Your task to perform on an android device: install app "Viber Messenger" Image 0: 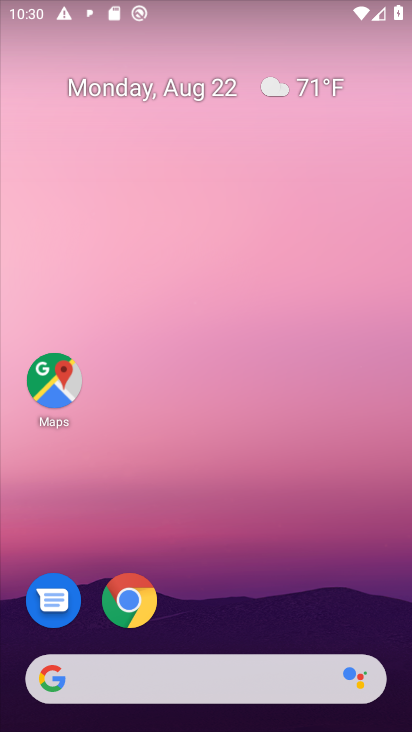
Step 0: drag from (202, 545) to (252, 12)
Your task to perform on an android device: install app "Viber Messenger" Image 1: 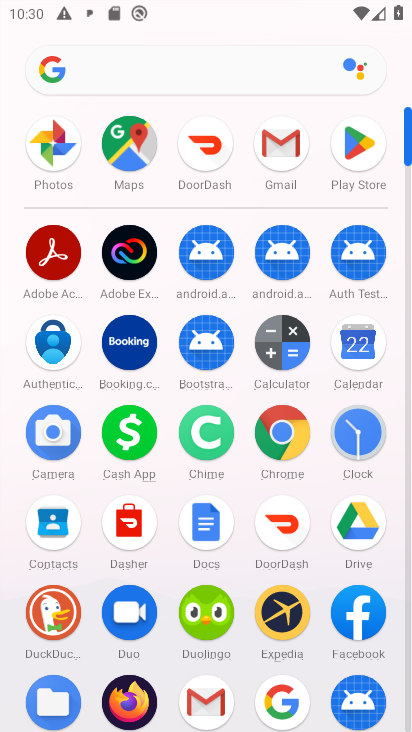
Step 1: click (349, 152)
Your task to perform on an android device: install app "Viber Messenger" Image 2: 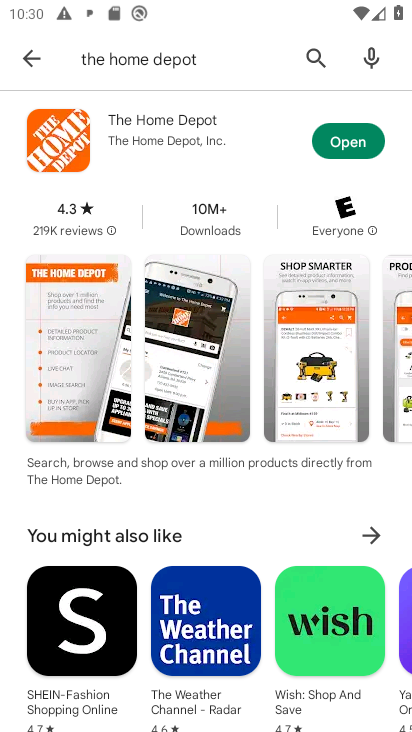
Step 2: click (308, 53)
Your task to perform on an android device: install app "Viber Messenger" Image 3: 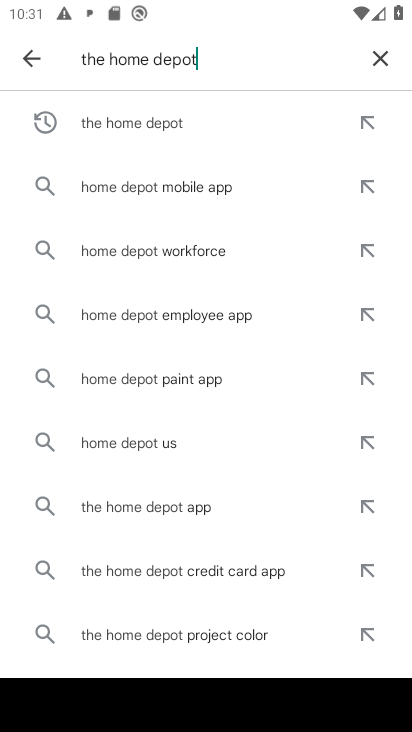
Step 3: click (379, 47)
Your task to perform on an android device: install app "Viber Messenger" Image 4: 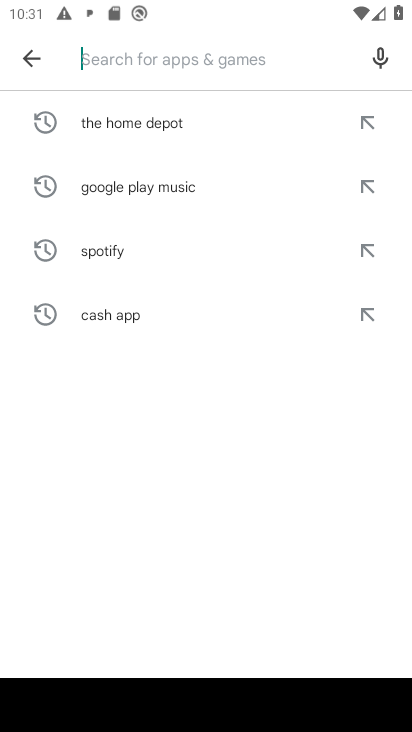
Step 4: type "Viber Messenger"
Your task to perform on an android device: install app "Viber Messenger" Image 5: 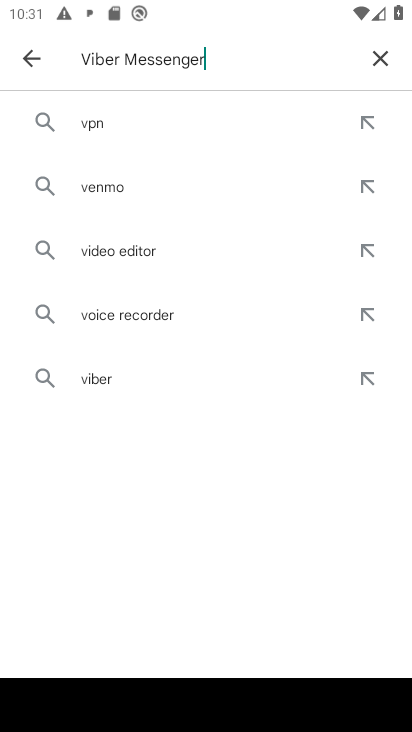
Step 5: type ""
Your task to perform on an android device: install app "Viber Messenger" Image 6: 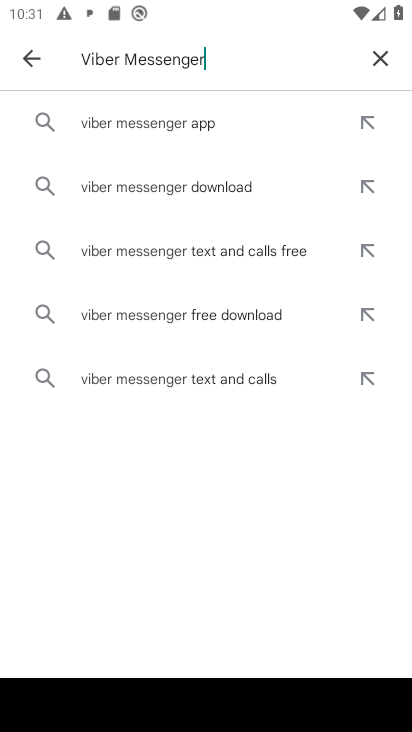
Step 6: click (180, 122)
Your task to perform on an android device: install app "Viber Messenger" Image 7: 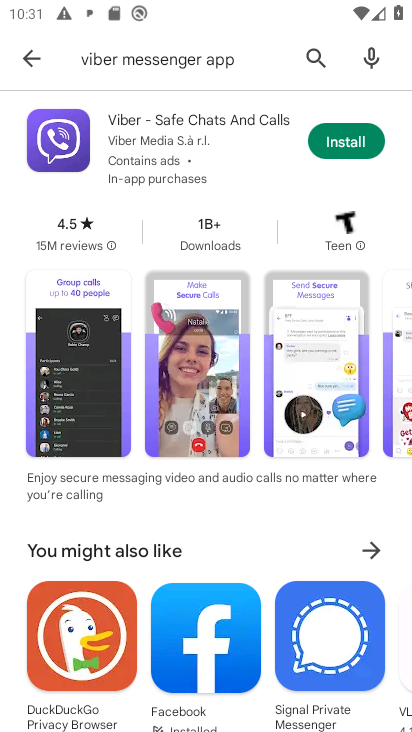
Step 7: click (329, 127)
Your task to perform on an android device: install app "Viber Messenger" Image 8: 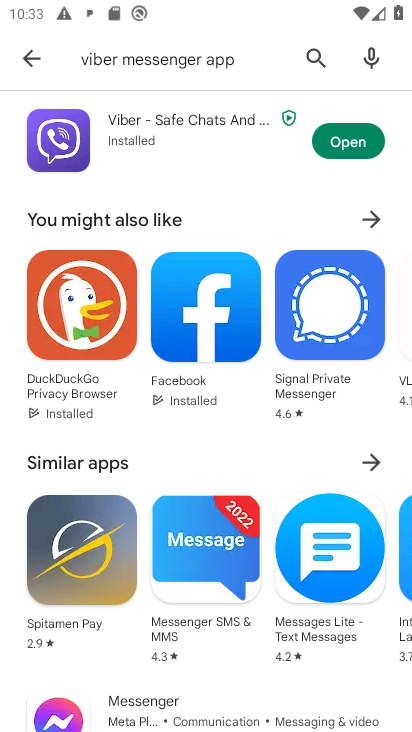
Step 8: task complete